Your task to perform on an android device: Open the map Image 0: 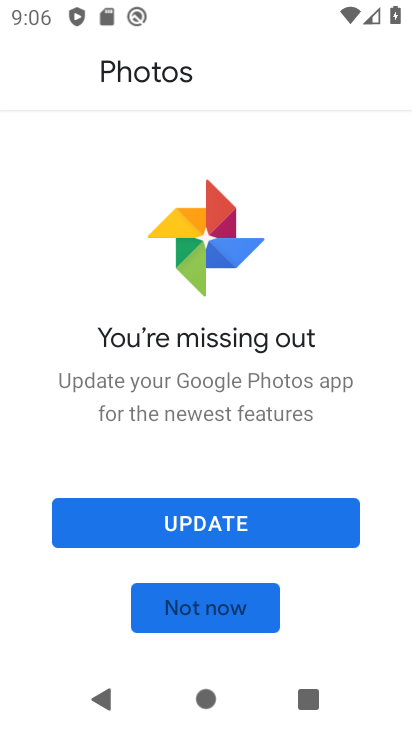
Step 0: press home button
Your task to perform on an android device: Open the map Image 1: 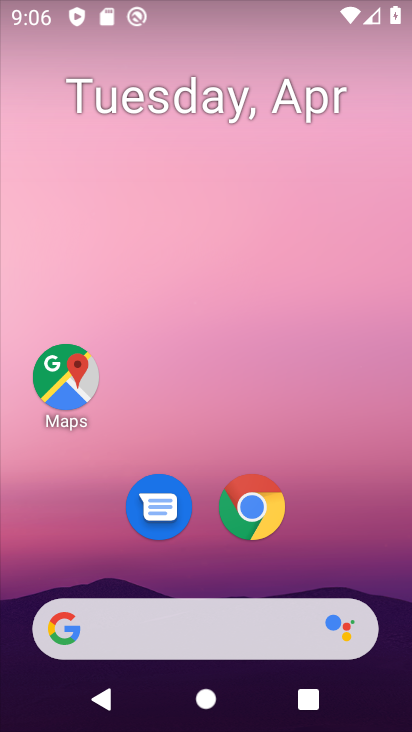
Step 1: drag from (332, 549) to (373, 55)
Your task to perform on an android device: Open the map Image 2: 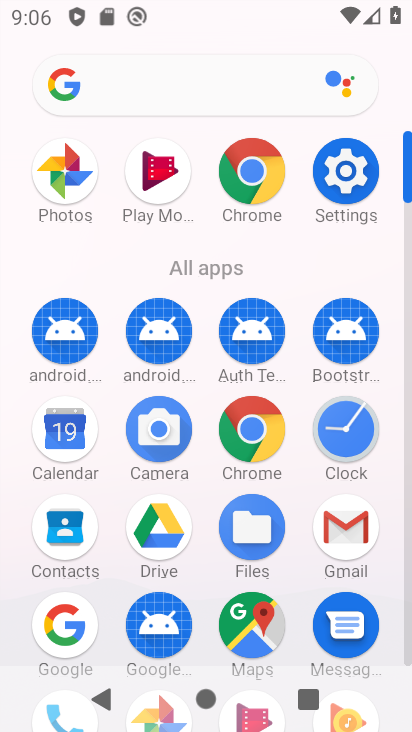
Step 2: click (257, 623)
Your task to perform on an android device: Open the map Image 3: 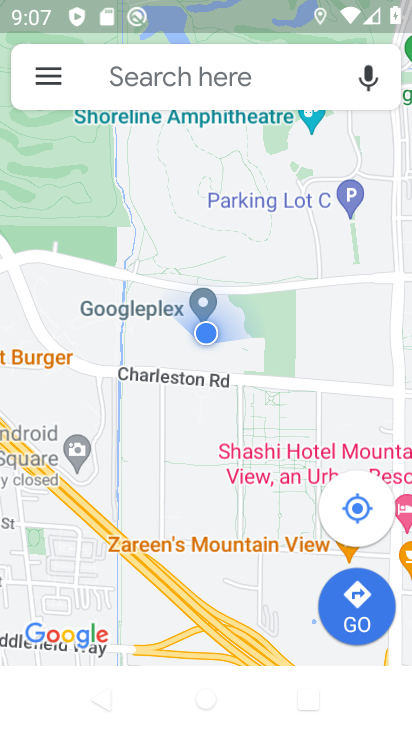
Step 3: task complete